Your task to perform on an android device: Open the map Image 0: 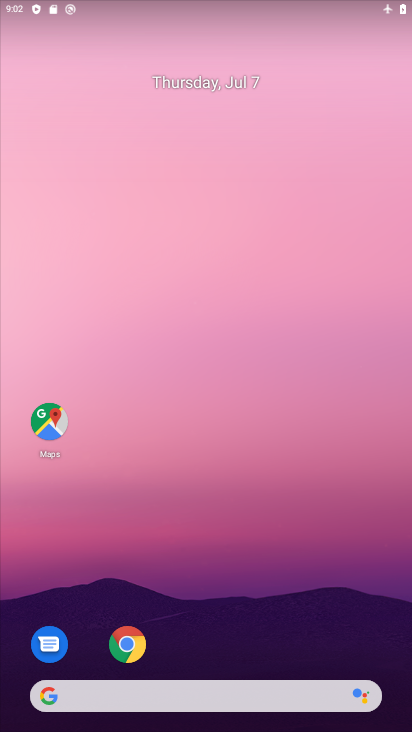
Step 0: click (53, 420)
Your task to perform on an android device: Open the map Image 1: 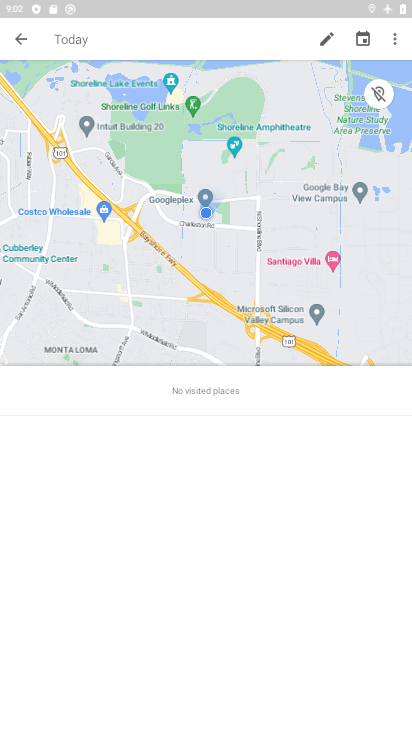
Step 1: task complete